Your task to perform on an android device: Go to accessibility settings Image 0: 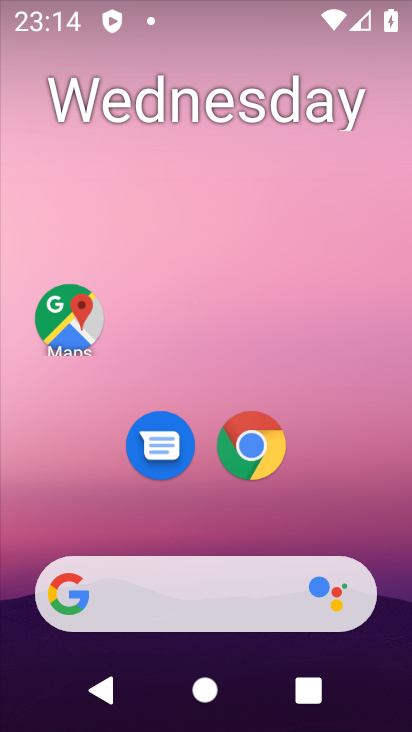
Step 0: drag from (200, 377) to (235, 67)
Your task to perform on an android device: Go to accessibility settings Image 1: 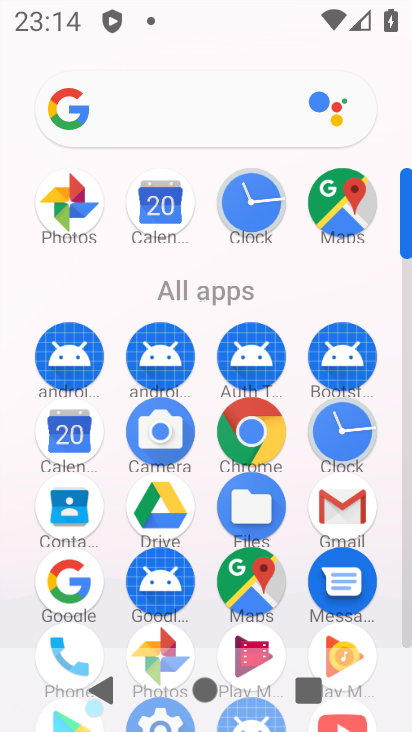
Step 1: drag from (202, 578) to (275, 91)
Your task to perform on an android device: Go to accessibility settings Image 2: 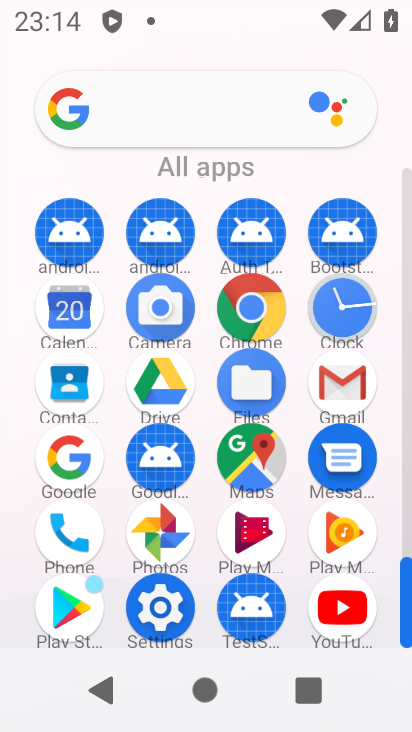
Step 2: click (164, 589)
Your task to perform on an android device: Go to accessibility settings Image 3: 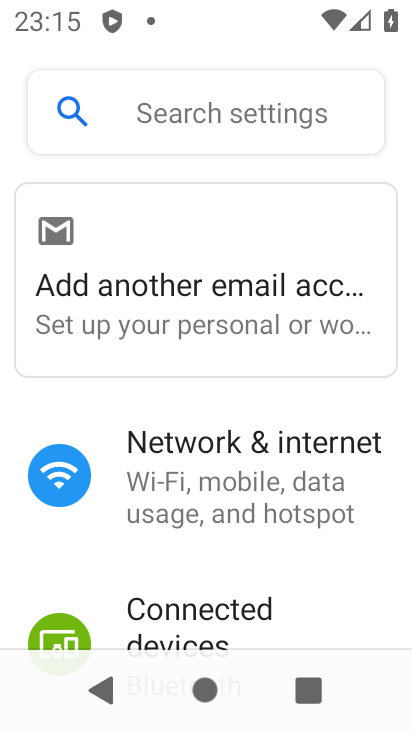
Step 3: drag from (221, 585) to (290, 64)
Your task to perform on an android device: Go to accessibility settings Image 4: 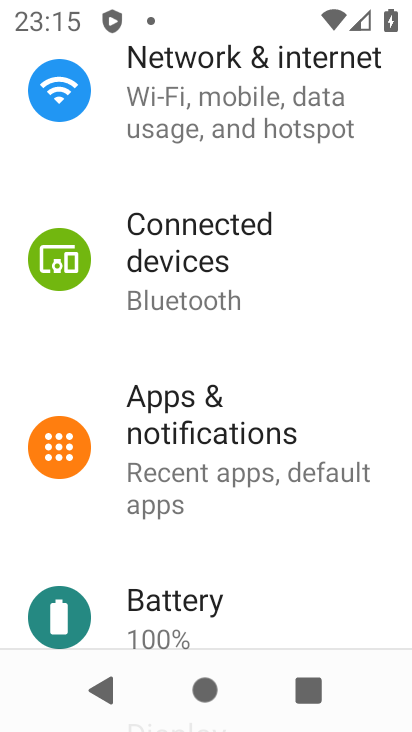
Step 4: drag from (240, 509) to (278, 50)
Your task to perform on an android device: Go to accessibility settings Image 5: 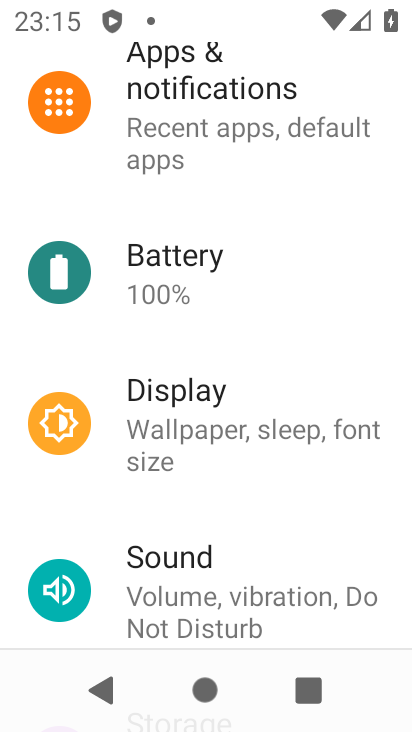
Step 5: drag from (180, 579) to (265, 80)
Your task to perform on an android device: Go to accessibility settings Image 6: 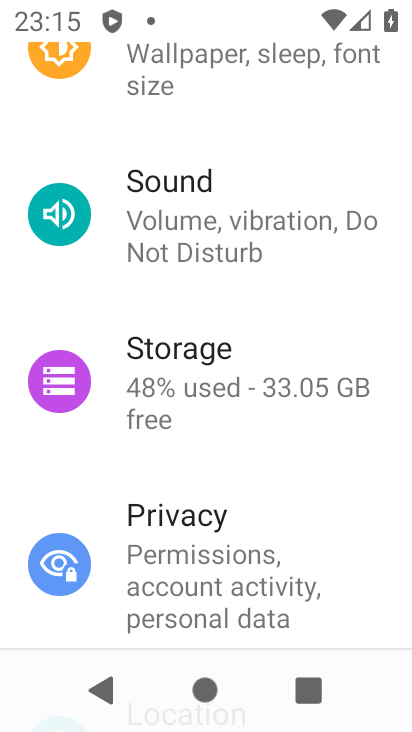
Step 6: drag from (243, 551) to (262, 42)
Your task to perform on an android device: Go to accessibility settings Image 7: 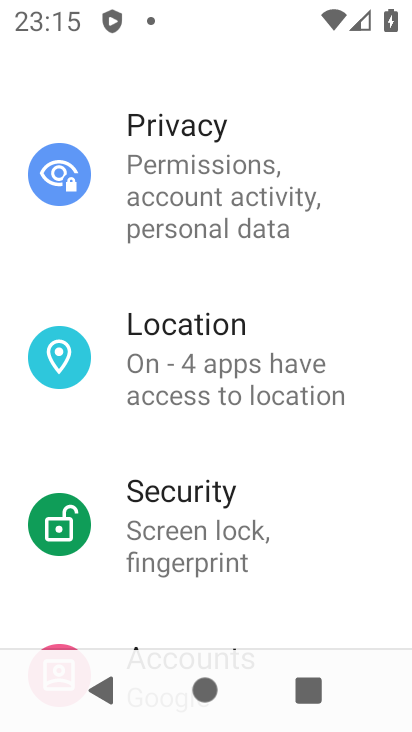
Step 7: drag from (239, 420) to (282, 57)
Your task to perform on an android device: Go to accessibility settings Image 8: 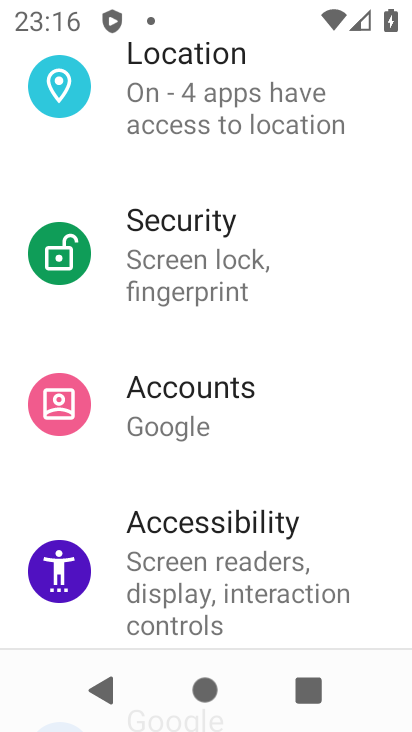
Step 8: click (211, 556)
Your task to perform on an android device: Go to accessibility settings Image 9: 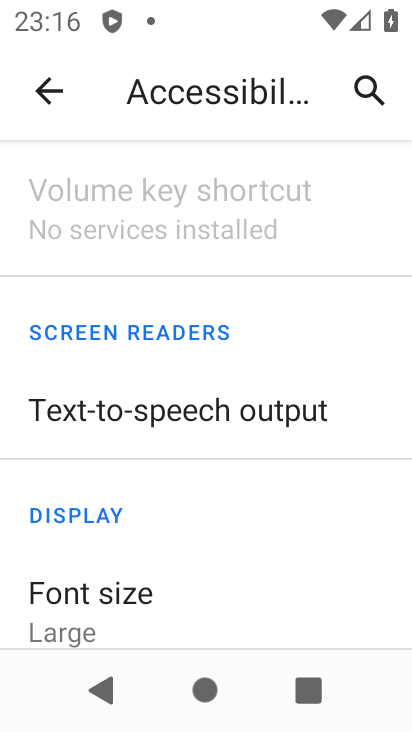
Step 9: task complete